Your task to perform on an android device: turn on bluetooth scan Image 0: 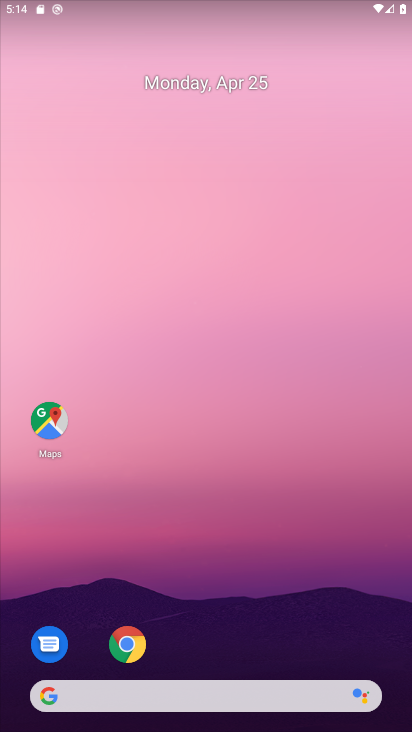
Step 0: drag from (265, 592) to (230, 93)
Your task to perform on an android device: turn on bluetooth scan Image 1: 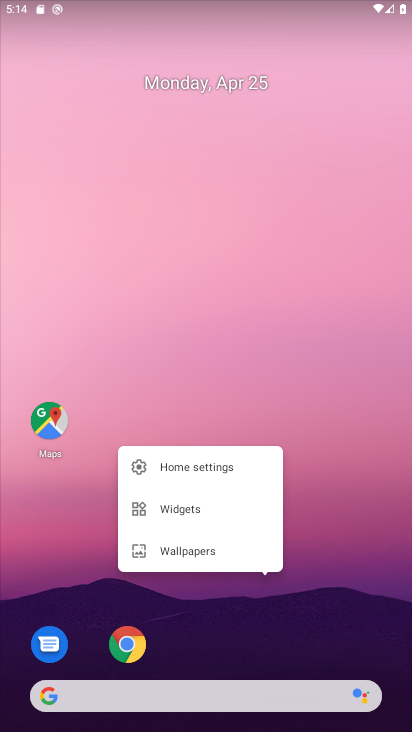
Step 1: drag from (324, 541) to (232, 72)
Your task to perform on an android device: turn on bluetooth scan Image 2: 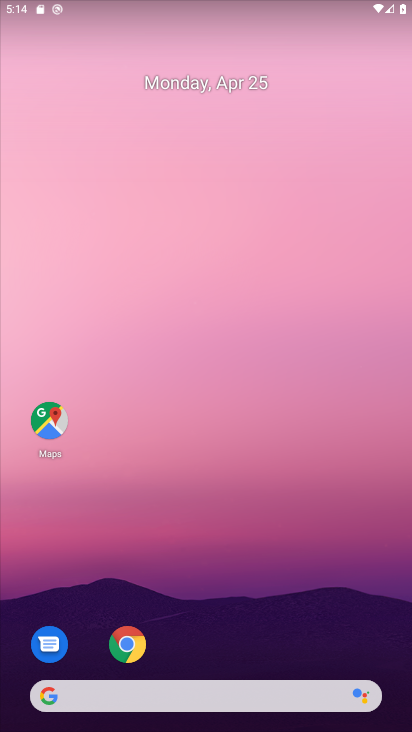
Step 2: drag from (224, 566) to (225, 38)
Your task to perform on an android device: turn on bluetooth scan Image 3: 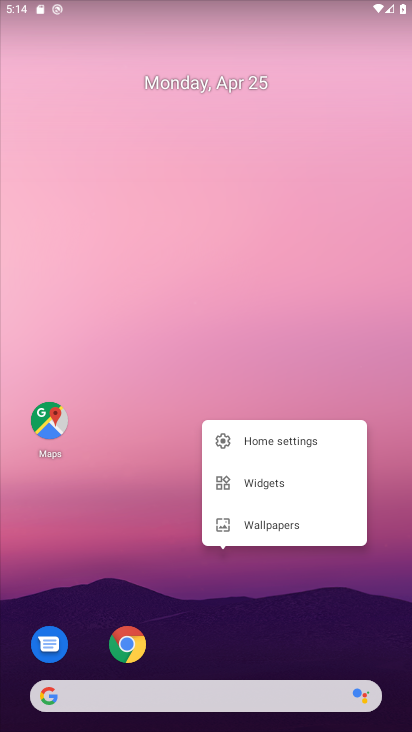
Step 3: drag from (218, 627) to (117, 149)
Your task to perform on an android device: turn on bluetooth scan Image 4: 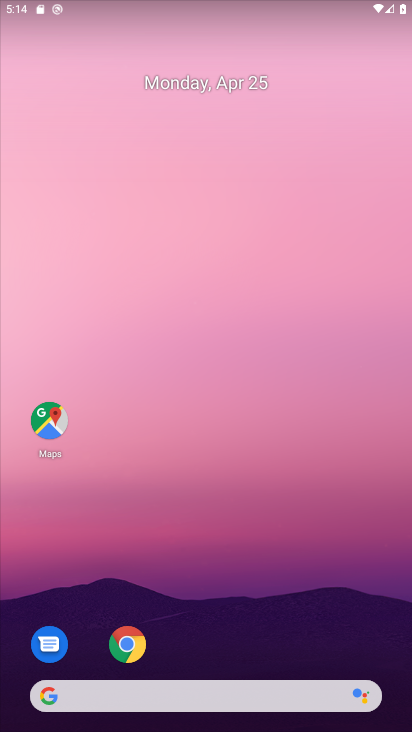
Step 4: drag from (250, 538) to (178, 33)
Your task to perform on an android device: turn on bluetooth scan Image 5: 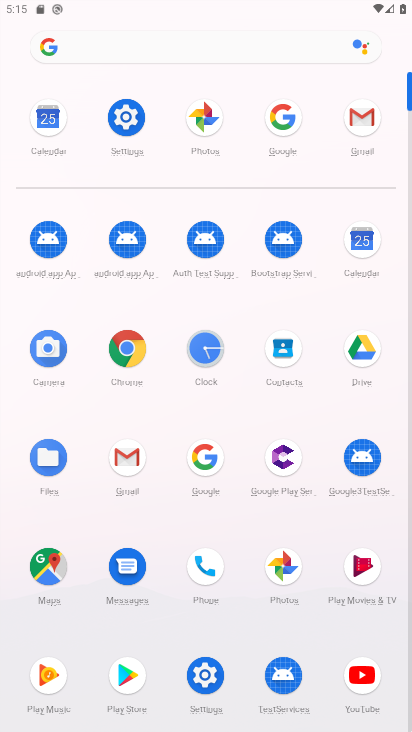
Step 5: click (125, 117)
Your task to perform on an android device: turn on bluetooth scan Image 6: 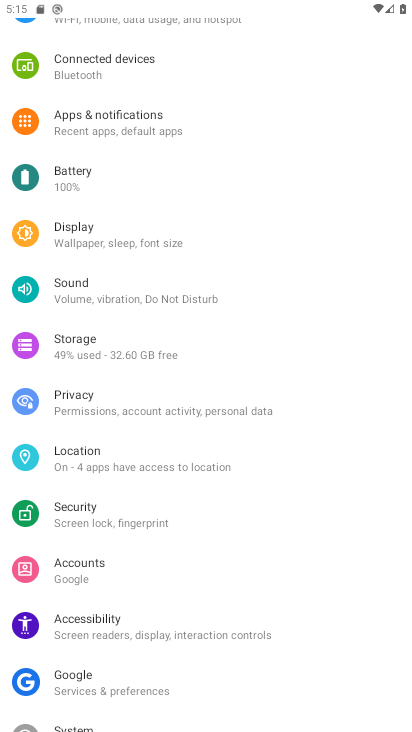
Step 6: click (166, 446)
Your task to perform on an android device: turn on bluetooth scan Image 7: 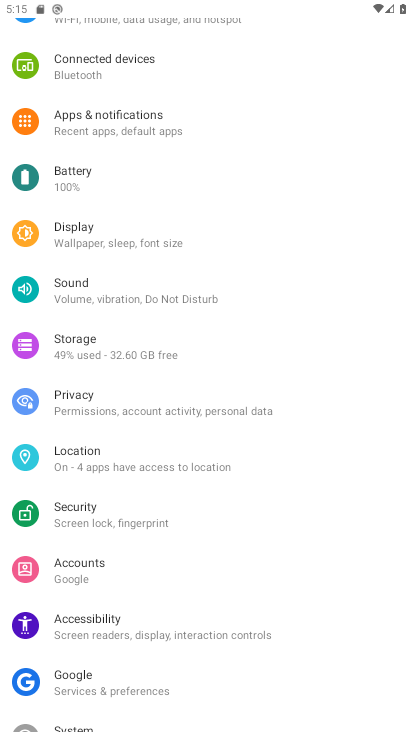
Step 7: click (179, 461)
Your task to perform on an android device: turn on bluetooth scan Image 8: 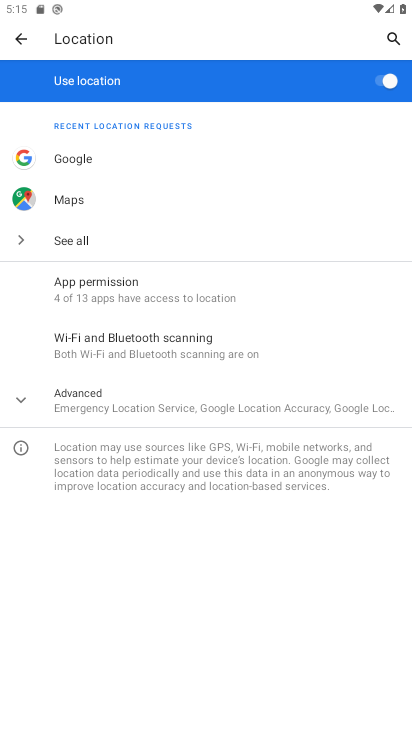
Step 8: click (194, 331)
Your task to perform on an android device: turn on bluetooth scan Image 9: 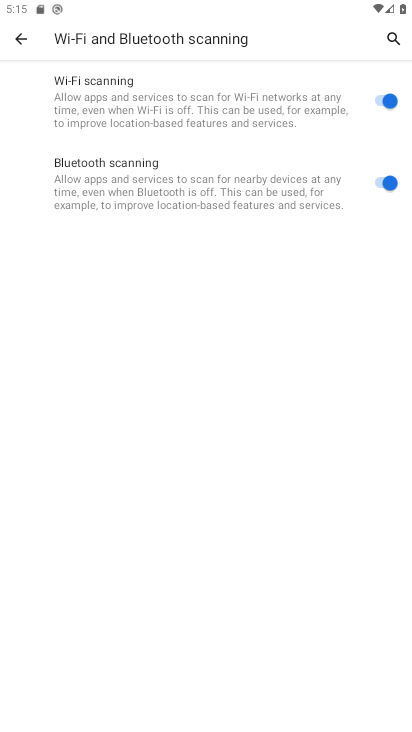
Step 9: task complete